Your task to perform on an android device: Open Google Chrome and open the bookmarks view Image 0: 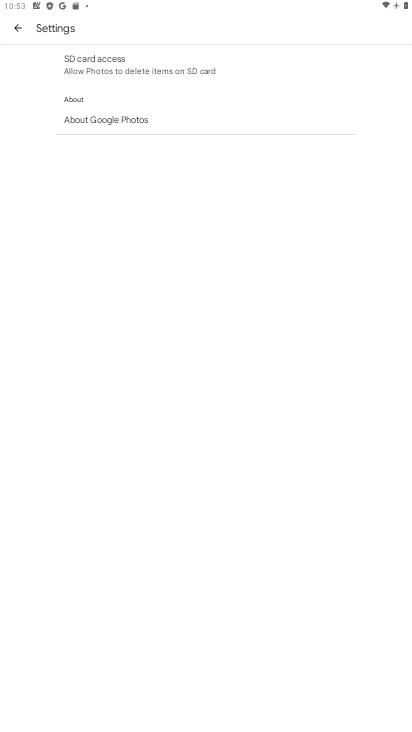
Step 0: task complete